Your task to perform on an android device: toggle sleep mode Image 0: 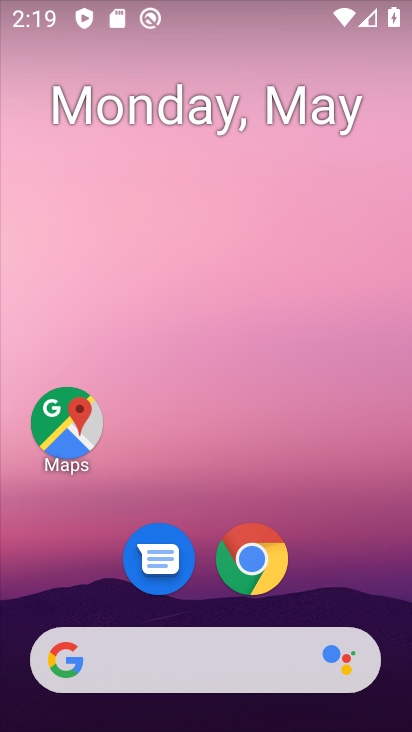
Step 0: drag from (353, 586) to (362, 223)
Your task to perform on an android device: toggle sleep mode Image 1: 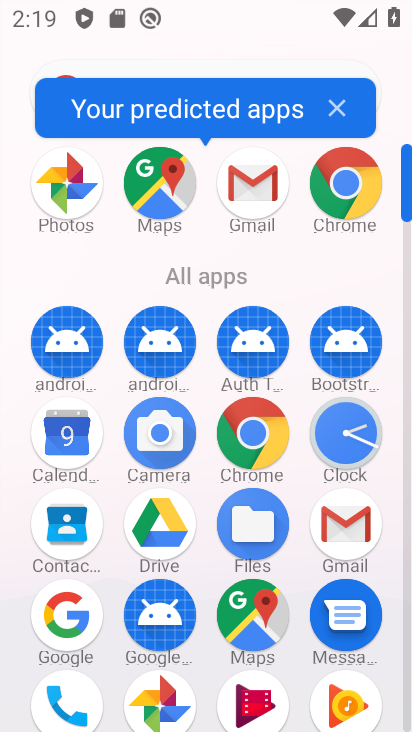
Step 1: drag from (212, 551) to (265, 153)
Your task to perform on an android device: toggle sleep mode Image 2: 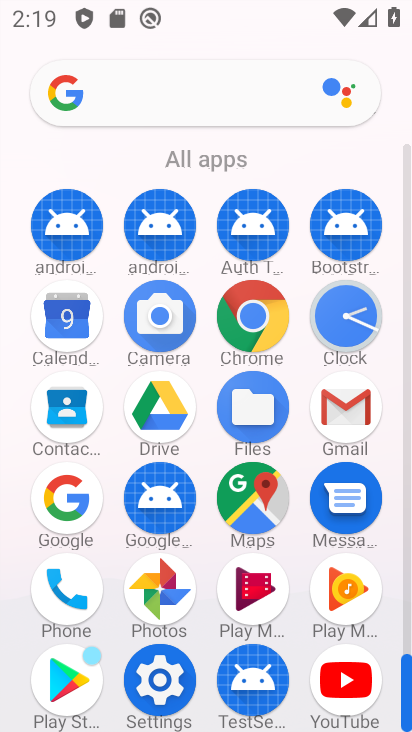
Step 2: click (154, 665)
Your task to perform on an android device: toggle sleep mode Image 3: 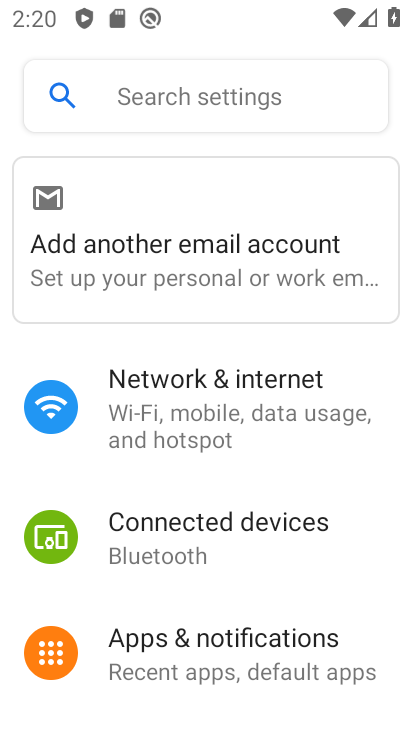
Step 3: drag from (270, 577) to (271, 191)
Your task to perform on an android device: toggle sleep mode Image 4: 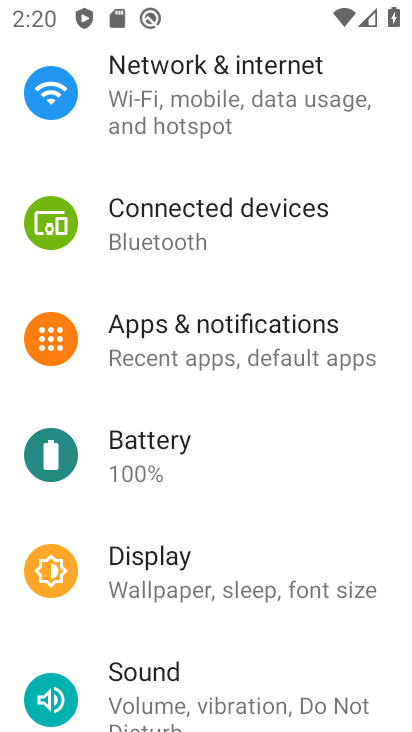
Step 4: click (305, 594)
Your task to perform on an android device: toggle sleep mode Image 5: 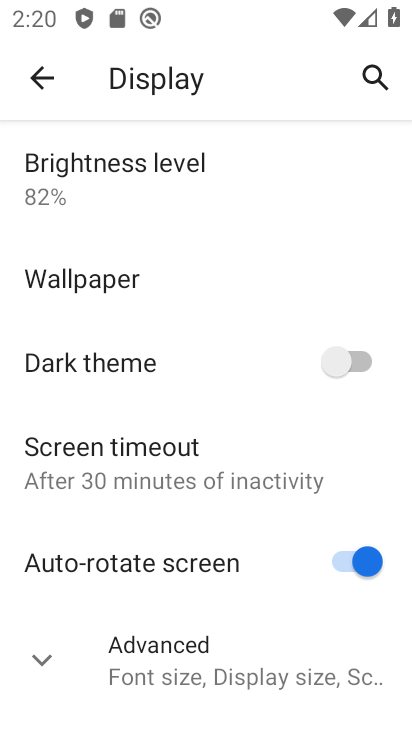
Step 5: click (168, 467)
Your task to perform on an android device: toggle sleep mode Image 6: 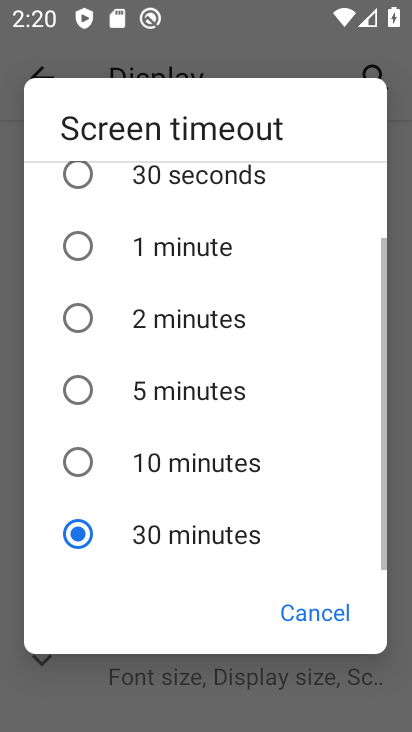
Step 6: click (212, 258)
Your task to perform on an android device: toggle sleep mode Image 7: 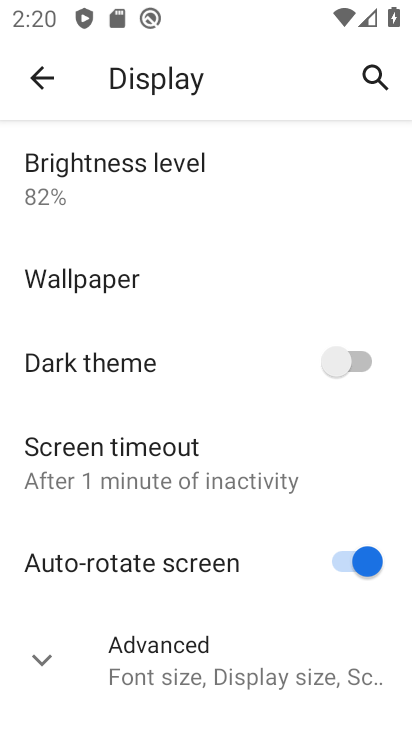
Step 7: task complete